Your task to perform on an android device: Open settings on Google Maps Image 0: 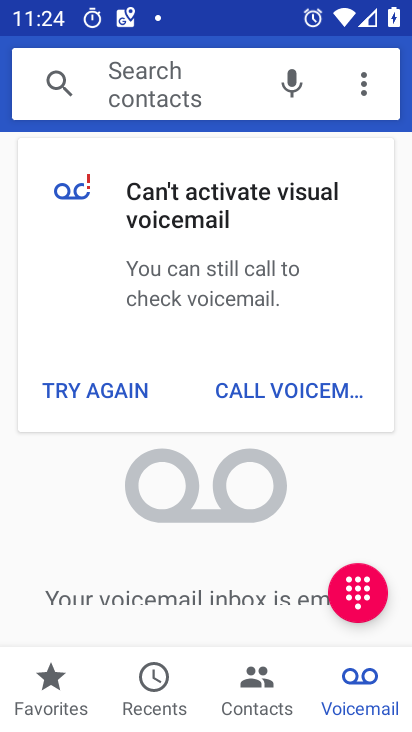
Step 0: press home button
Your task to perform on an android device: Open settings on Google Maps Image 1: 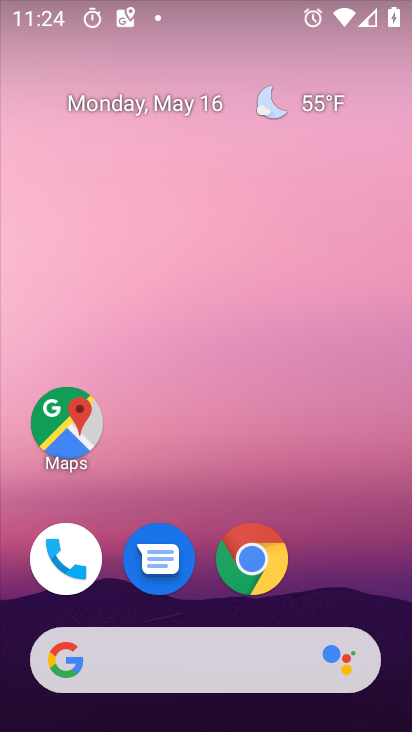
Step 1: click (83, 418)
Your task to perform on an android device: Open settings on Google Maps Image 2: 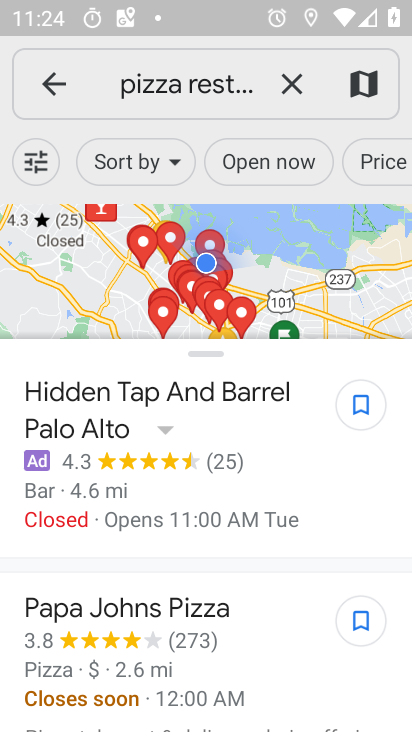
Step 2: click (57, 90)
Your task to perform on an android device: Open settings on Google Maps Image 3: 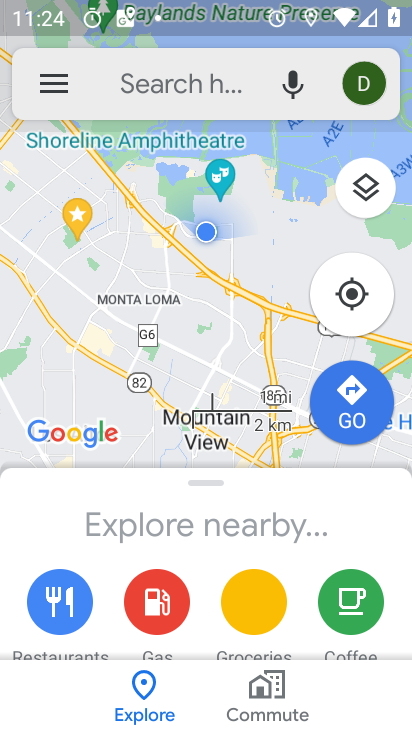
Step 3: click (59, 86)
Your task to perform on an android device: Open settings on Google Maps Image 4: 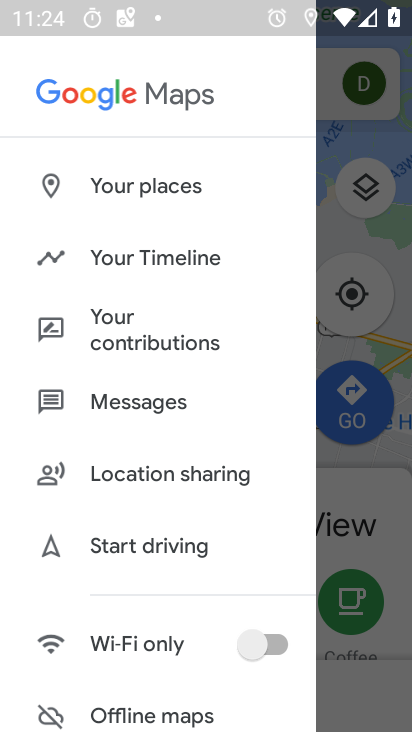
Step 4: drag from (164, 673) to (220, 201)
Your task to perform on an android device: Open settings on Google Maps Image 5: 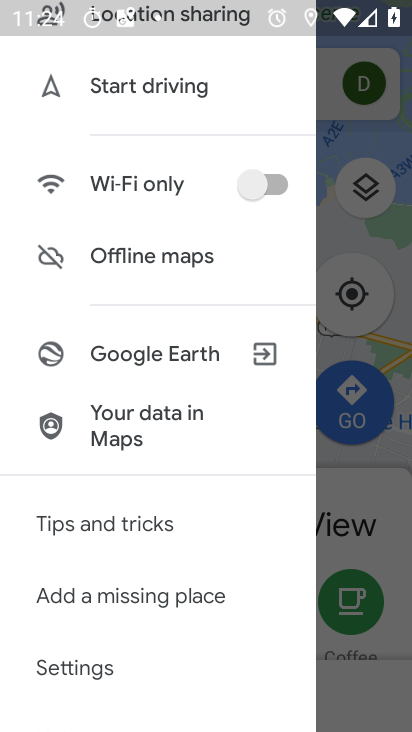
Step 5: click (60, 676)
Your task to perform on an android device: Open settings on Google Maps Image 6: 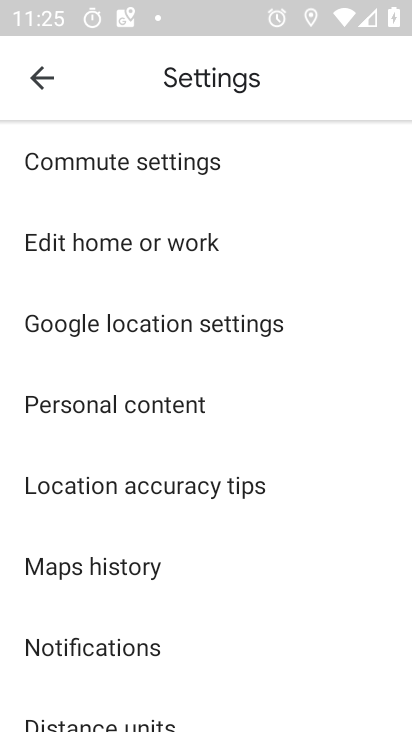
Step 6: task complete